Your task to perform on an android device: What's on my calendar tomorrow? Image 0: 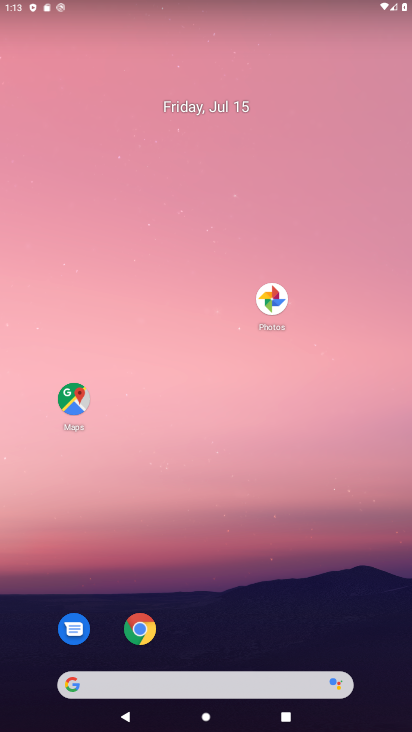
Step 0: drag from (194, 631) to (207, 206)
Your task to perform on an android device: What's on my calendar tomorrow? Image 1: 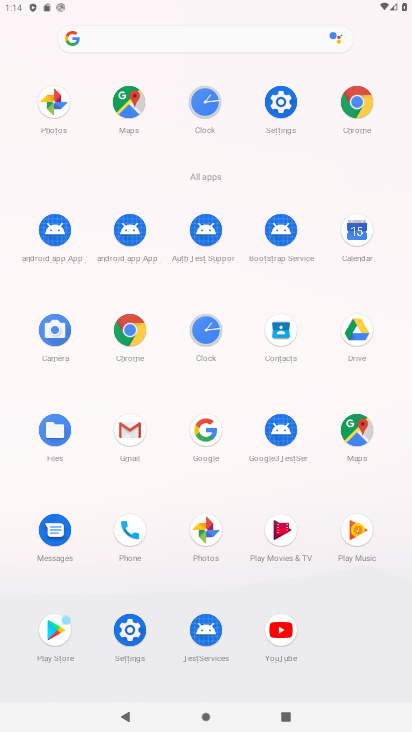
Step 1: click (347, 227)
Your task to perform on an android device: What's on my calendar tomorrow? Image 2: 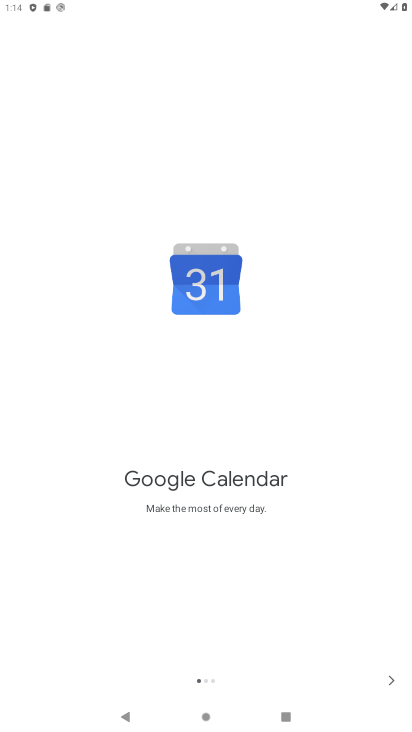
Step 2: click (379, 675)
Your task to perform on an android device: What's on my calendar tomorrow? Image 3: 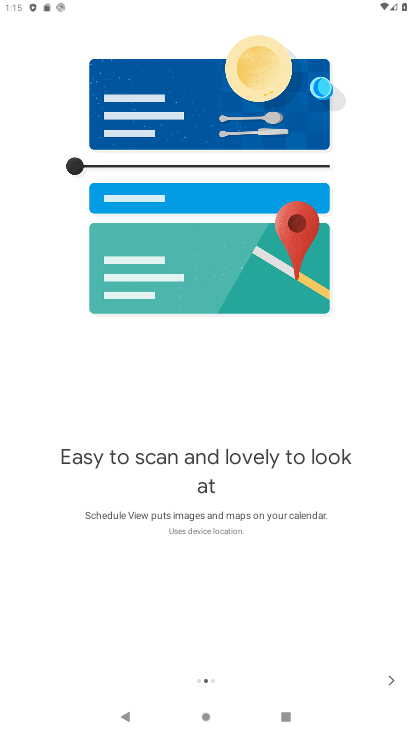
Step 3: click (379, 675)
Your task to perform on an android device: What's on my calendar tomorrow? Image 4: 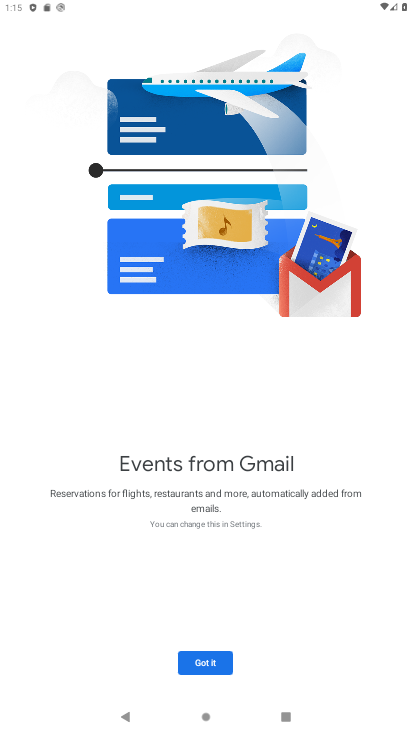
Step 4: click (215, 660)
Your task to perform on an android device: What's on my calendar tomorrow? Image 5: 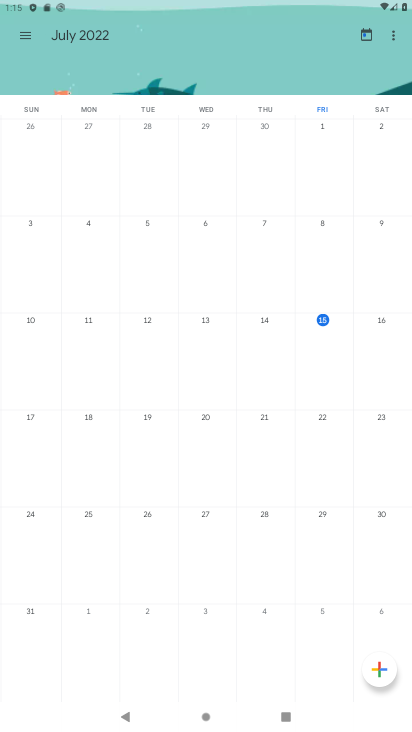
Step 5: click (367, 350)
Your task to perform on an android device: What's on my calendar tomorrow? Image 6: 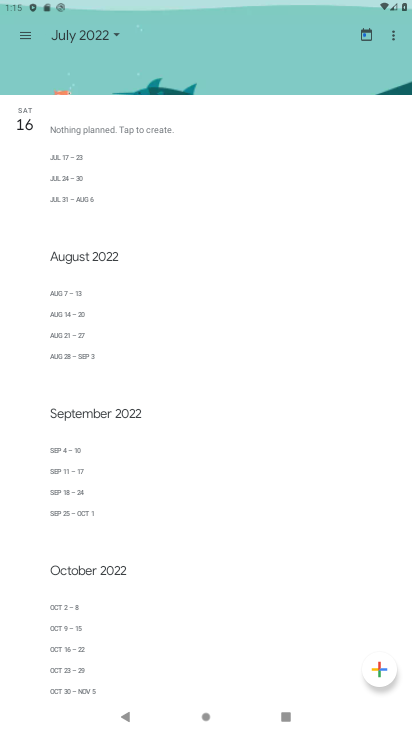
Step 6: task complete